Your task to perform on an android device: turn off notifications in google photos Image 0: 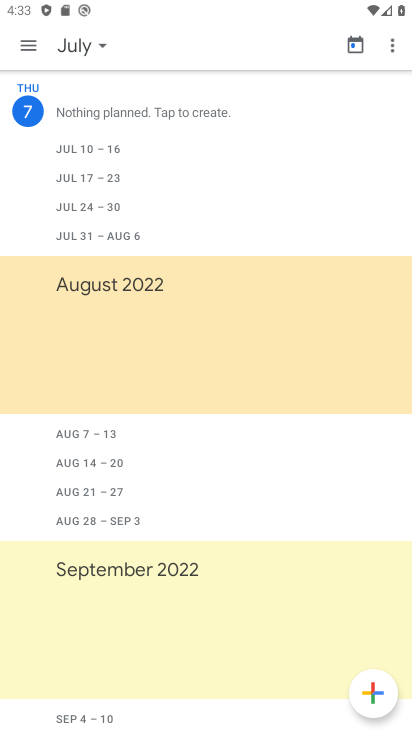
Step 0: drag from (212, 617) to (84, 21)
Your task to perform on an android device: turn off notifications in google photos Image 1: 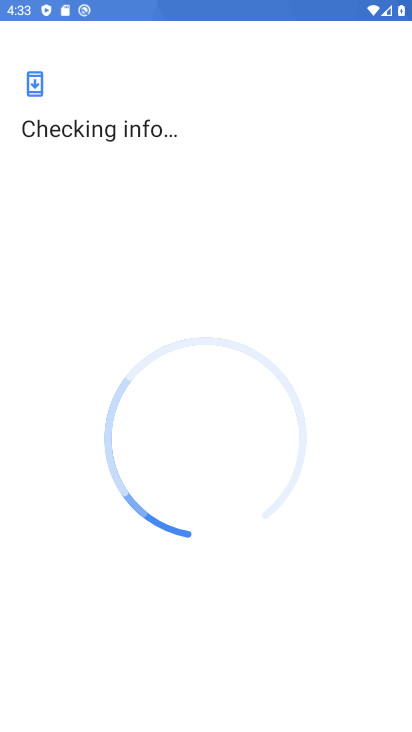
Step 1: drag from (249, 652) to (182, 55)
Your task to perform on an android device: turn off notifications in google photos Image 2: 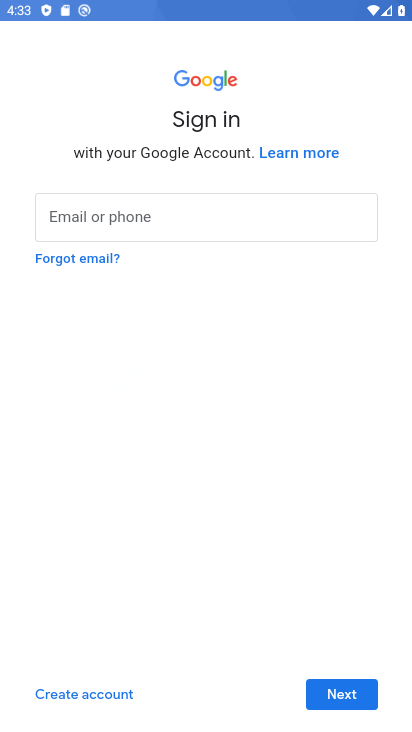
Step 2: press back button
Your task to perform on an android device: turn off notifications in google photos Image 3: 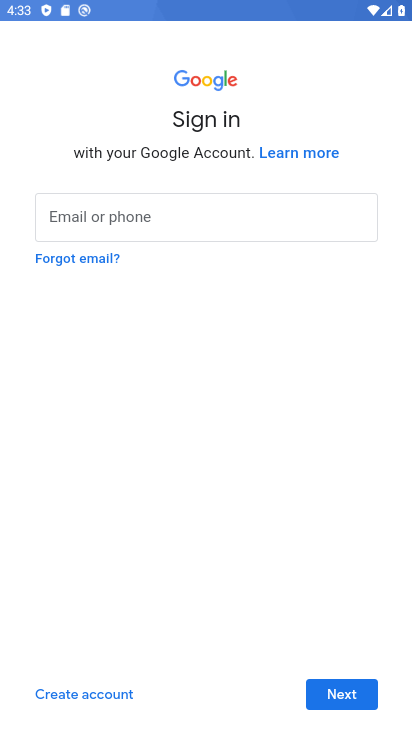
Step 3: press back button
Your task to perform on an android device: turn off notifications in google photos Image 4: 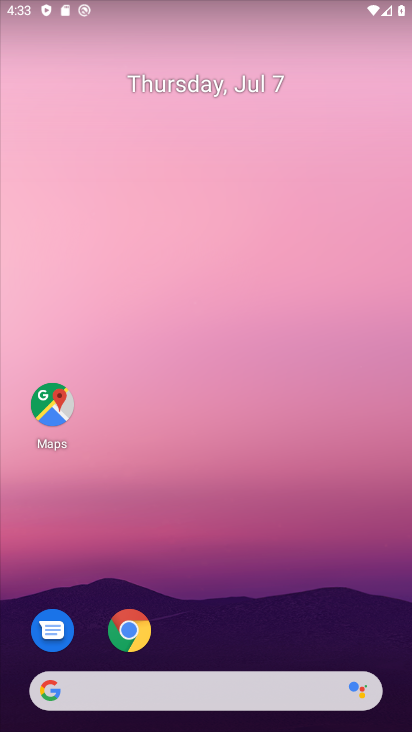
Step 4: press home button
Your task to perform on an android device: turn off notifications in google photos Image 5: 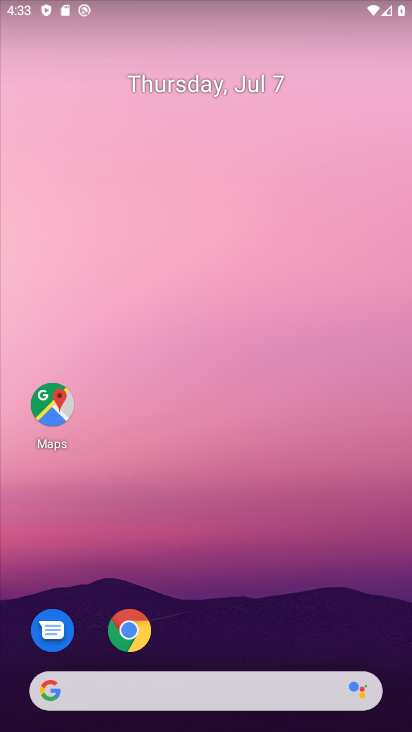
Step 5: drag from (240, 498) to (132, 166)
Your task to perform on an android device: turn off notifications in google photos Image 6: 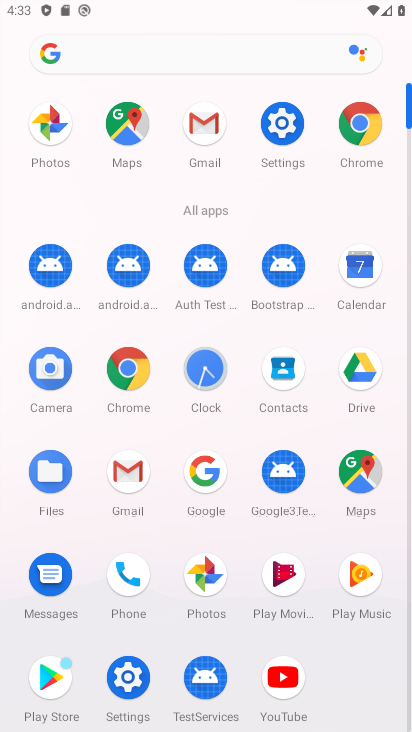
Step 6: click (196, 558)
Your task to perform on an android device: turn off notifications in google photos Image 7: 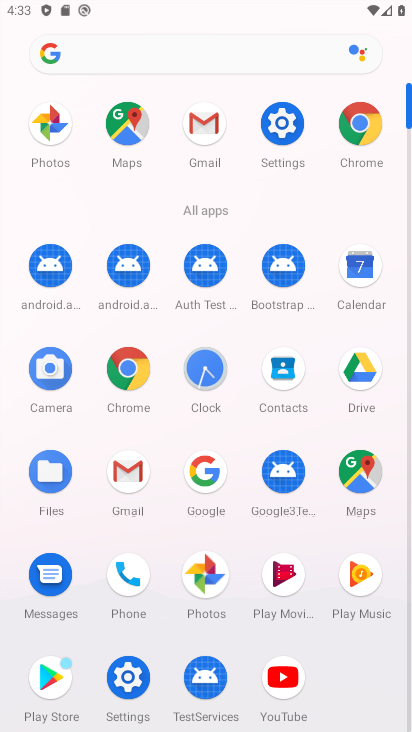
Step 7: click (196, 565)
Your task to perform on an android device: turn off notifications in google photos Image 8: 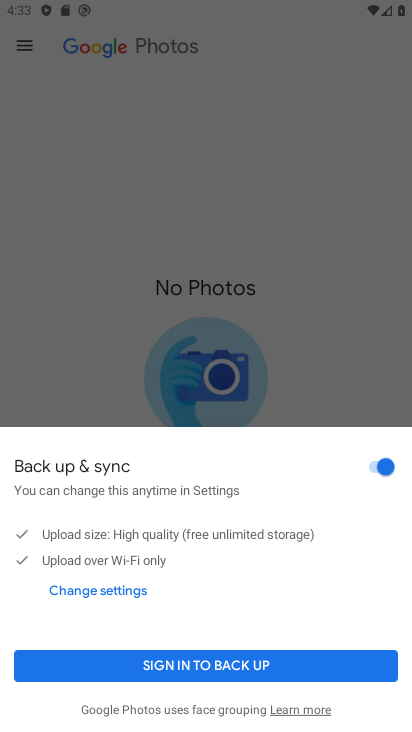
Step 8: click (298, 290)
Your task to perform on an android device: turn off notifications in google photos Image 9: 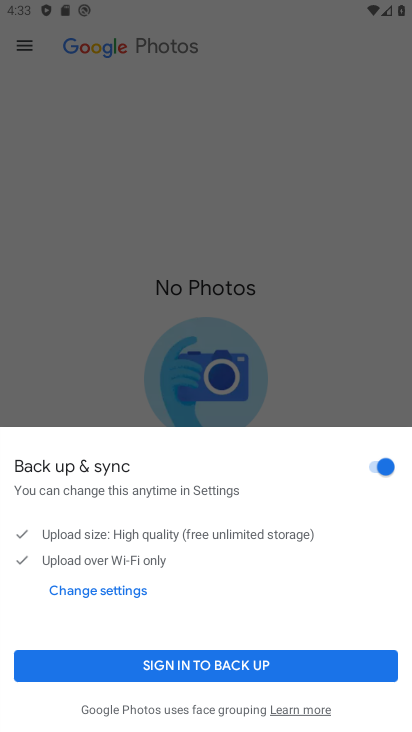
Step 9: click (301, 288)
Your task to perform on an android device: turn off notifications in google photos Image 10: 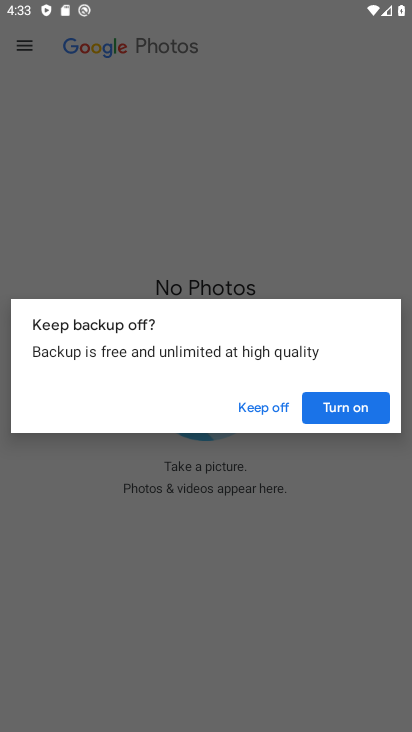
Step 10: click (330, 397)
Your task to perform on an android device: turn off notifications in google photos Image 11: 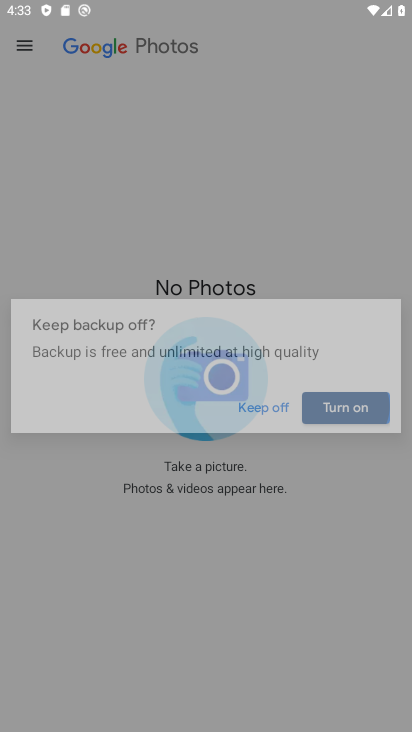
Step 11: click (330, 397)
Your task to perform on an android device: turn off notifications in google photos Image 12: 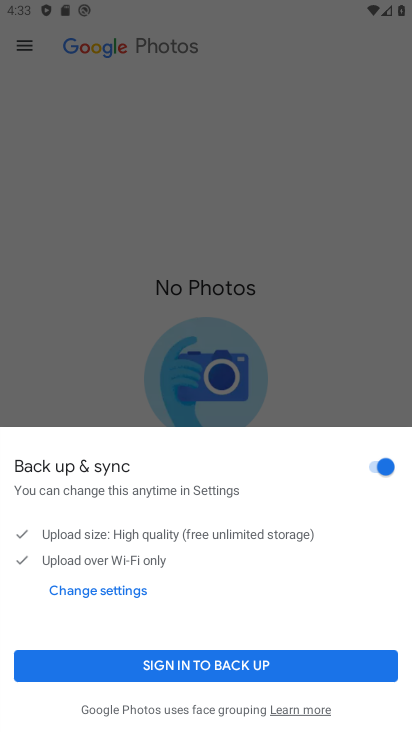
Step 12: click (335, 400)
Your task to perform on an android device: turn off notifications in google photos Image 13: 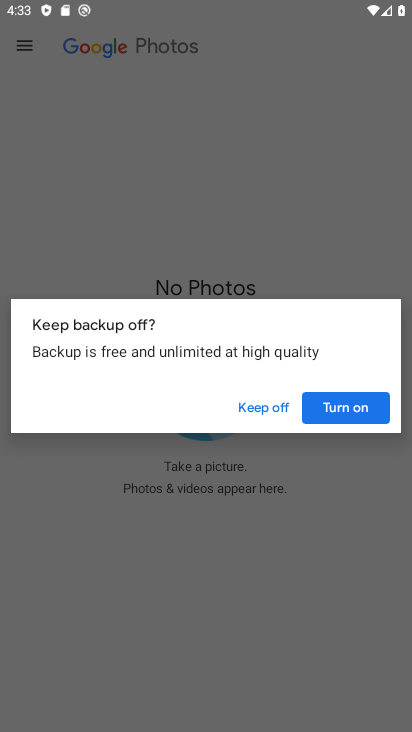
Step 13: click (256, 140)
Your task to perform on an android device: turn off notifications in google photos Image 14: 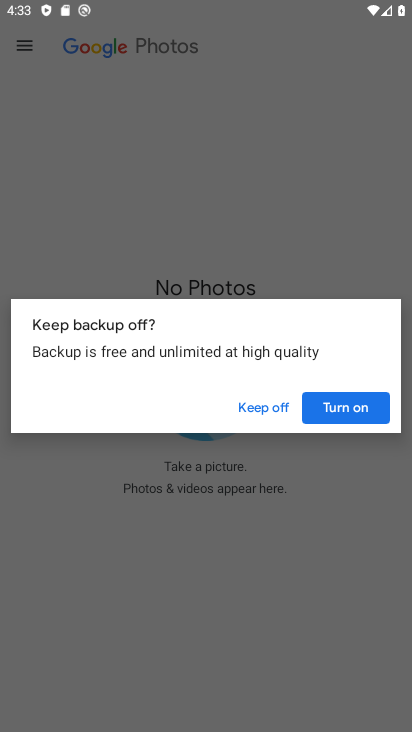
Step 14: click (251, 224)
Your task to perform on an android device: turn off notifications in google photos Image 15: 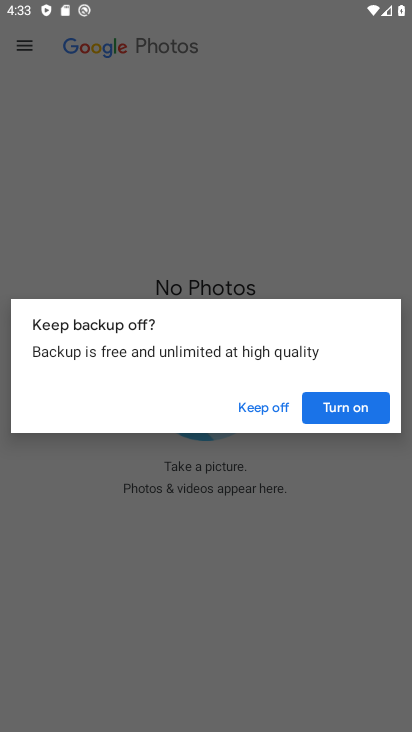
Step 15: click (331, 395)
Your task to perform on an android device: turn off notifications in google photos Image 16: 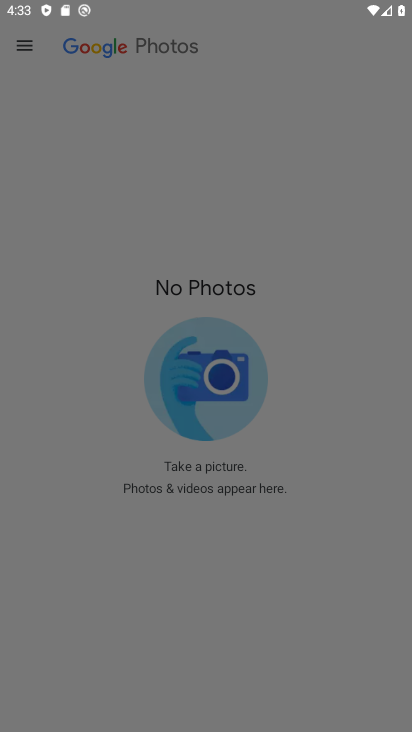
Step 16: click (269, 407)
Your task to perform on an android device: turn off notifications in google photos Image 17: 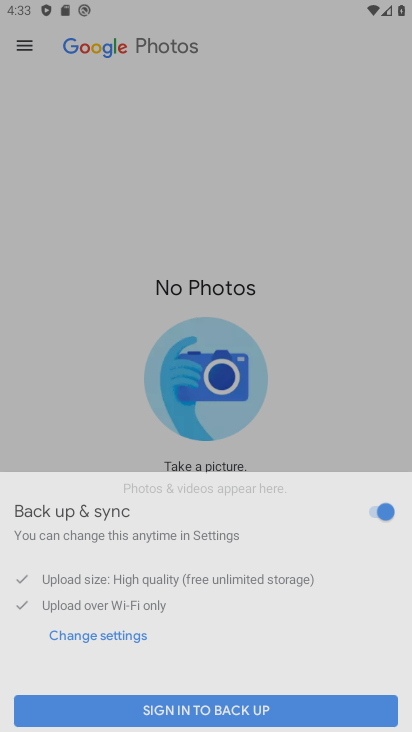
Step 17: click (268, 408)
Your task to perform on an android device: turn off notifications in google photos Image 18: 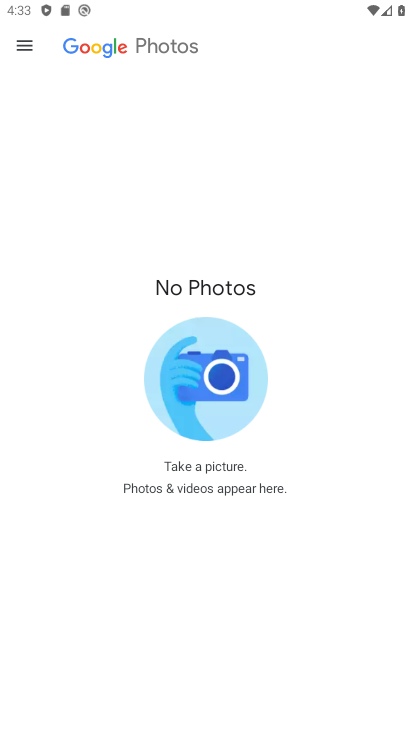
Step 18: click (28, 41)
Your task to perform on an android device: turn off notifications in google photos Image 19: 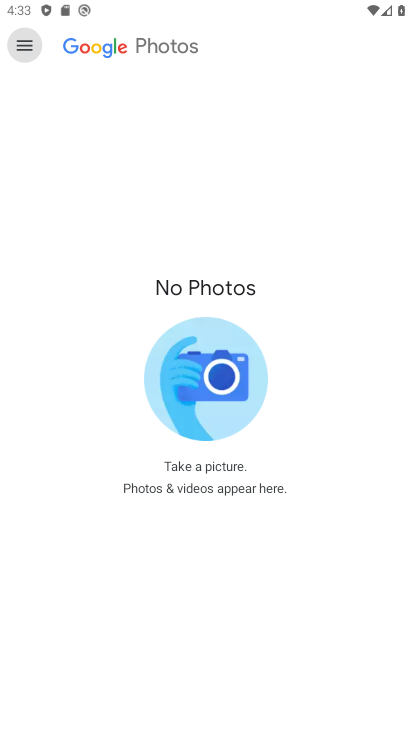
Step 19: click (28, 41)
Your task to perform on an android device: turn off notifications in google photos Image 20: 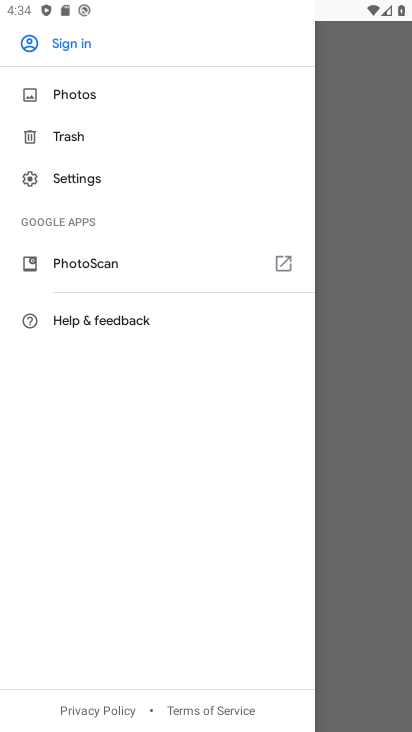
Step 20: click (93, 97)
Your task to perform on an android device: turn off notifications in google photos Image 21: 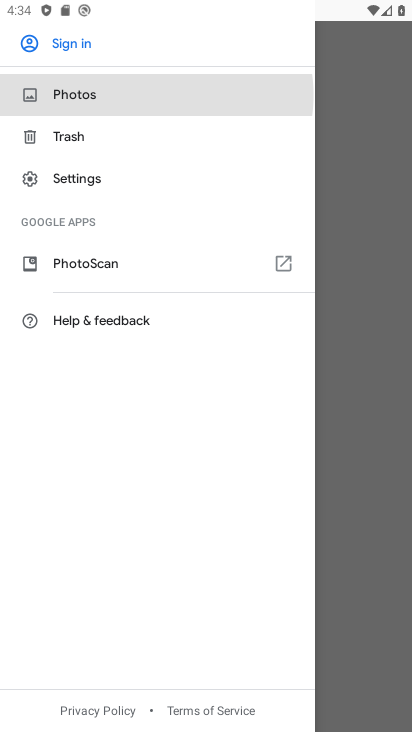
Step 21: click (93, 97)
Your task to perform on an android device: turn off notifications in google photos Image 22: 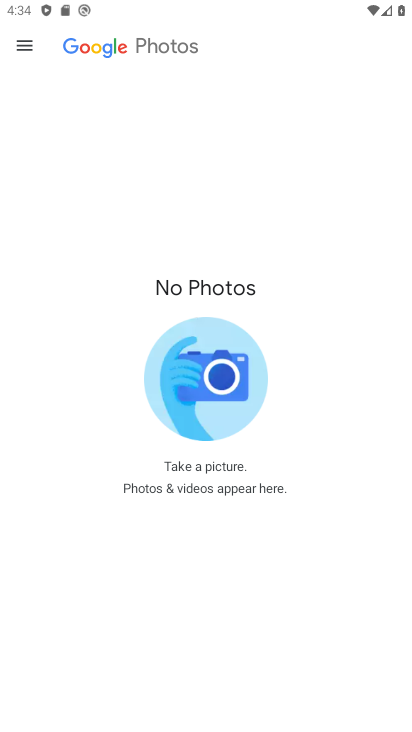
Step 22: click (93, 97)
Your task to perform on an android device: turn off notifications in google photos Image 23: 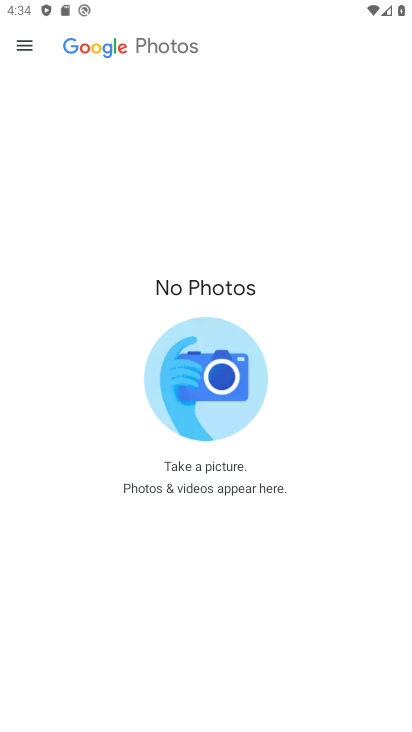
Step 23: drag from (31, 42) to (43, 275)
Your task to perform on an android device: turn off notifications in google photos Image 24: 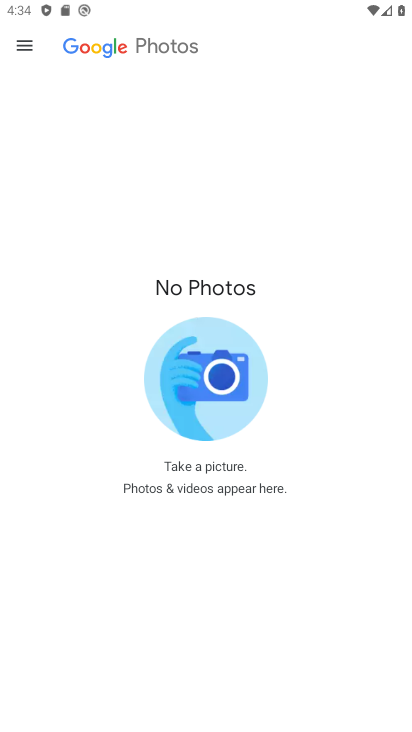
Step 24: click (27, 52)
Your task to perform on an android device: turn off notifications in google photos Image 25: 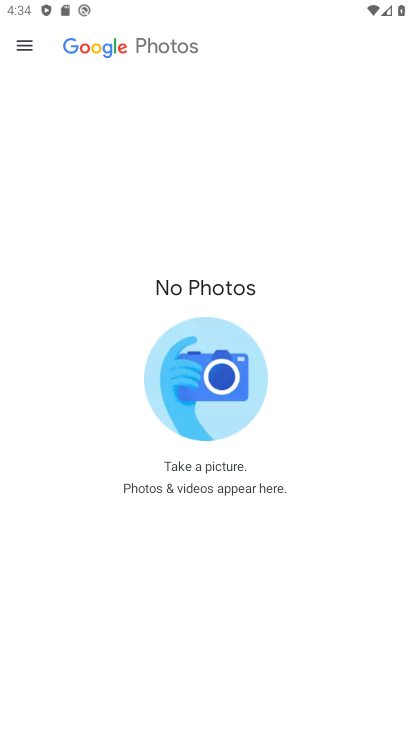
Step 25: drag from (27, 52) to (401, 391)
Your task to perform on an android device: turn off notifications in google photos Image 26: 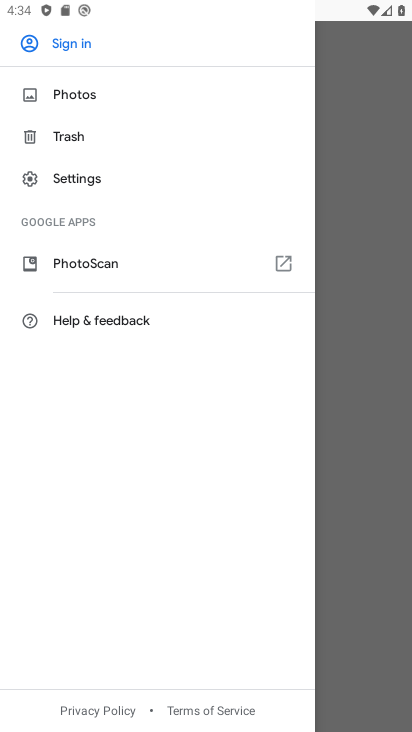
Step 26: click (75, 183)
Your task to perform on an android device: turn off notifications in google photos Image 27: 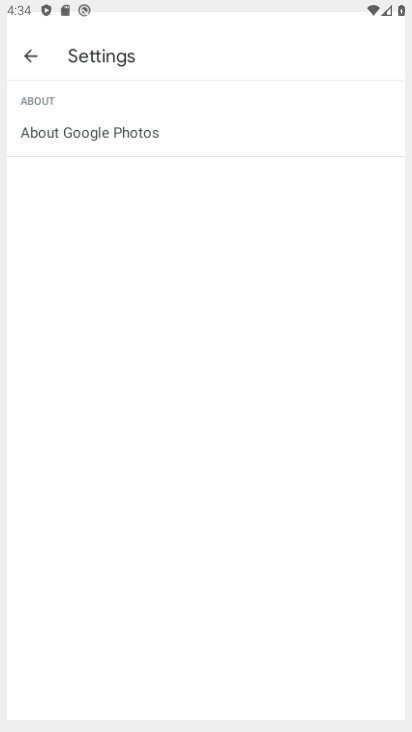
Step 27: click (90, 166)
Your task to perform on an android device: turn off notifications in google photos Image 28: 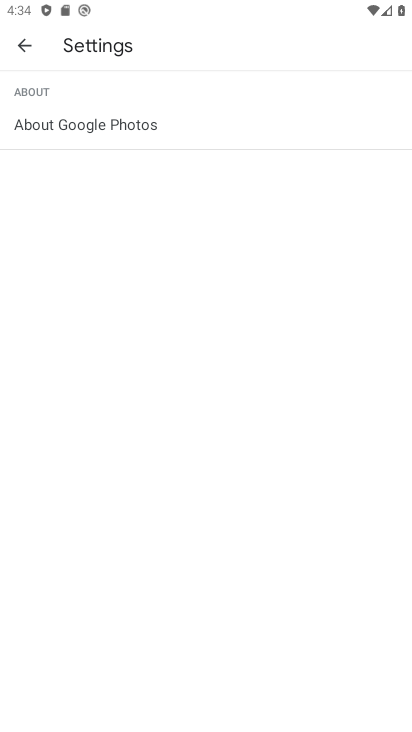
Step 28: task complete